Your task to perform on an android device: change your default location settings in chrome Image 0: 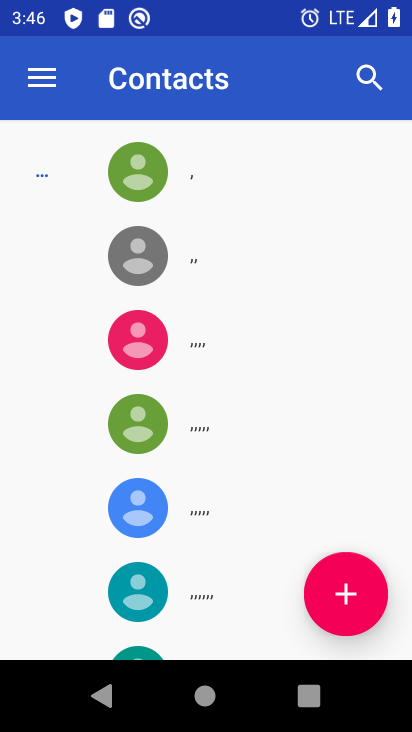
Step 0: press home button
Your task to perform on an android device: change your default location settings in chrome Image 1: 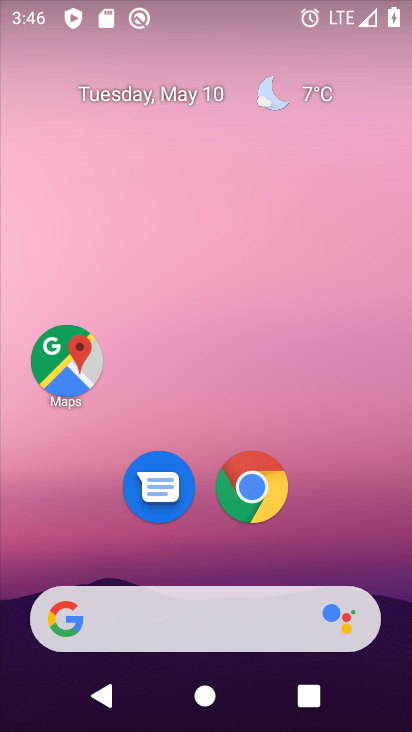
Step 1: drag from (353, 476) to (250, 113)
Your task to perform on an android device: change your default location settings in chrome Image 2: 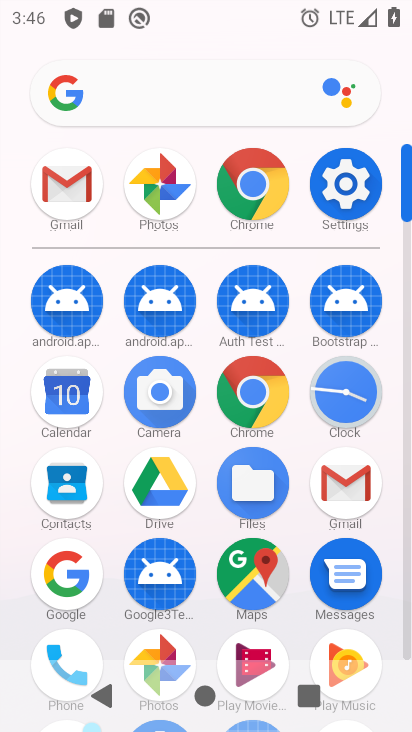
Step 2: click (253, 392)
Your task to perform on an android device: change your default location settings in chrome Image 3: 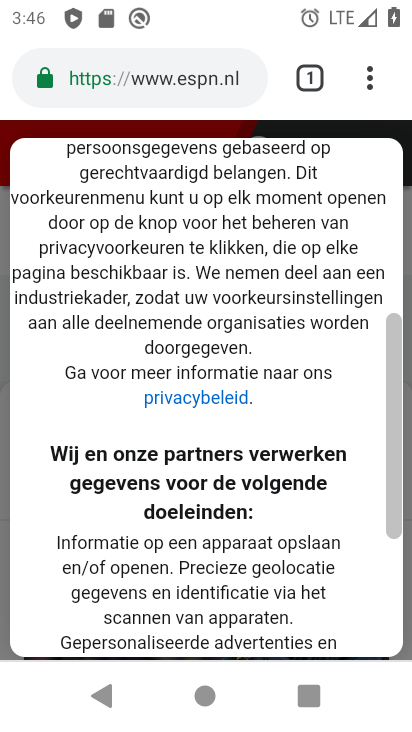
Step 3: drag from (376, 67) to (213, 552)
Your task to perform on an android device: change your default location settings in chrome Image 4: 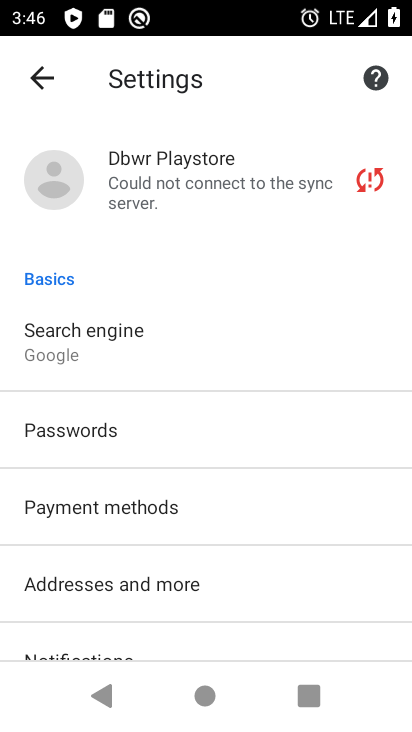
Step 4: drag from (257, 592) to (242, 86)
Your task to perform on an android device: change your default location settings in chrome Image 5: 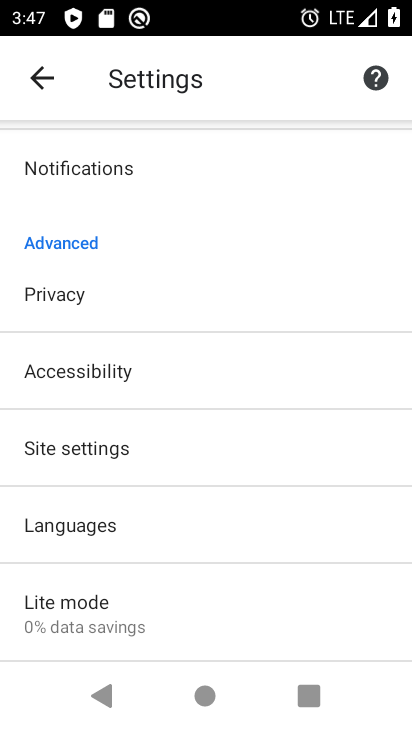
Step 5: click (139, 447)
Your task to perform on an android device: change your default location settings in chrome Image 6: 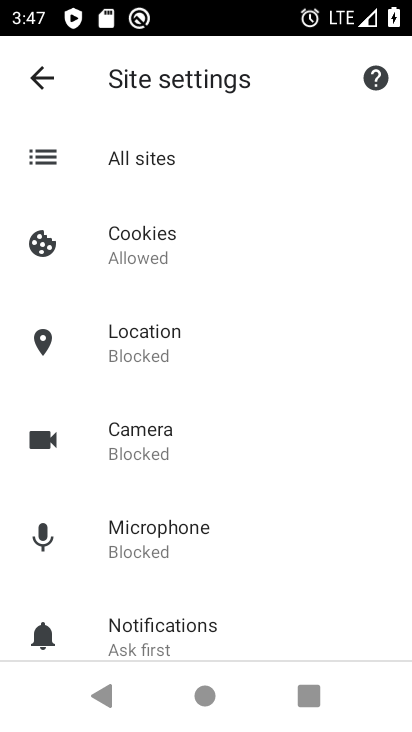
Step 6: click (166, 325)
Your task to perform on an android device: change your default location settings in chrome Image 7: 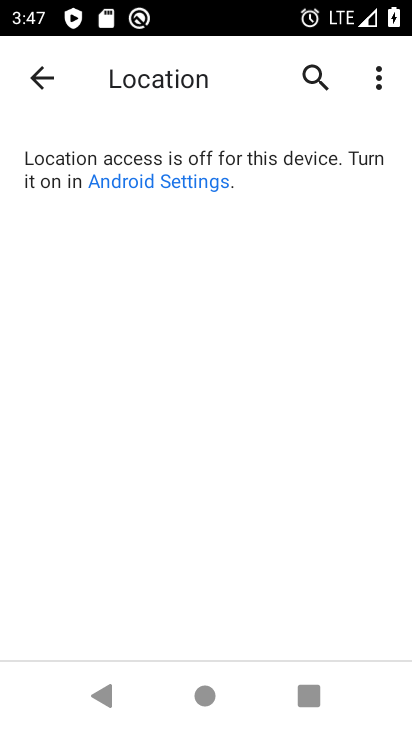
Step 7: click (169, 177)
Your task to perform on an android device: change your default location settings in chrome Image 8: 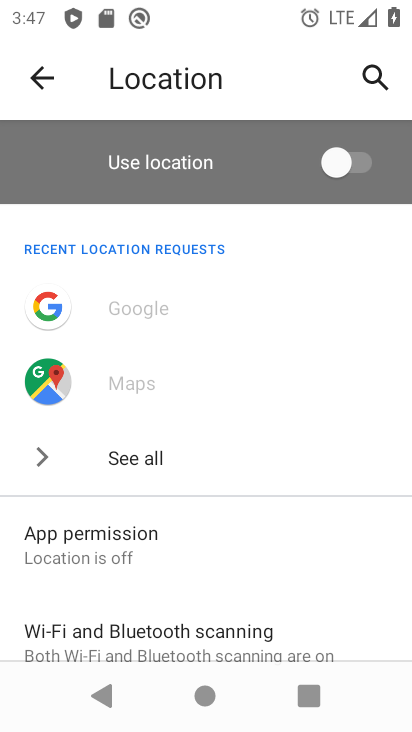
Step 8: task complete